Your task to perform on an android device: check out phone information Image 0: 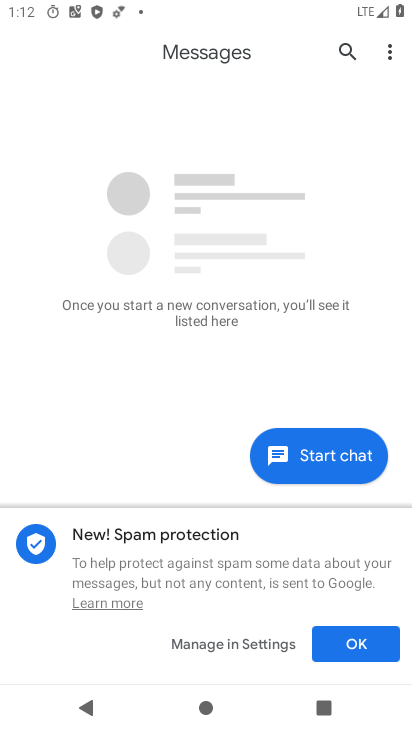
Step 0: press home button
Your task to perform on an android device: check out phone information Image 1: 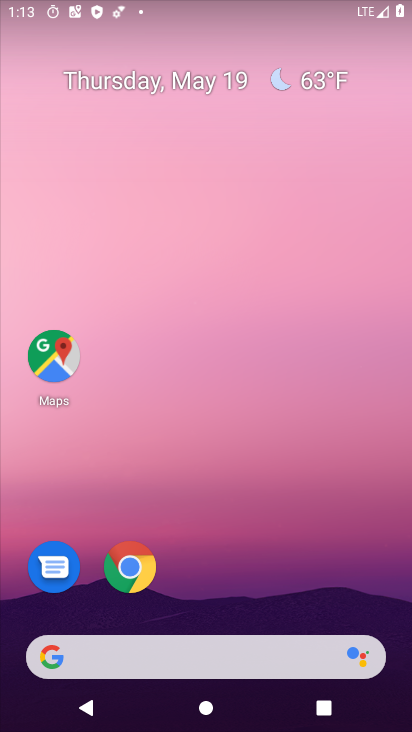
Step 1: drag from (152, 657) to (314, 252)
Your task to perform on an android device: check out phone information Image 2: 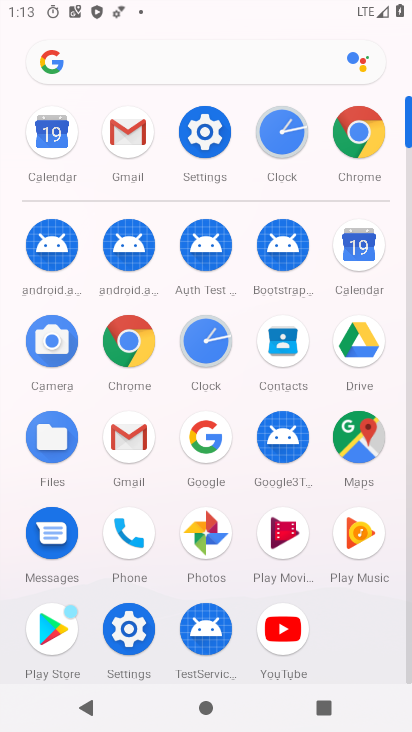
Step 2: click (208, 146)
Your task to perform on an android device: check out phone information Image 3: 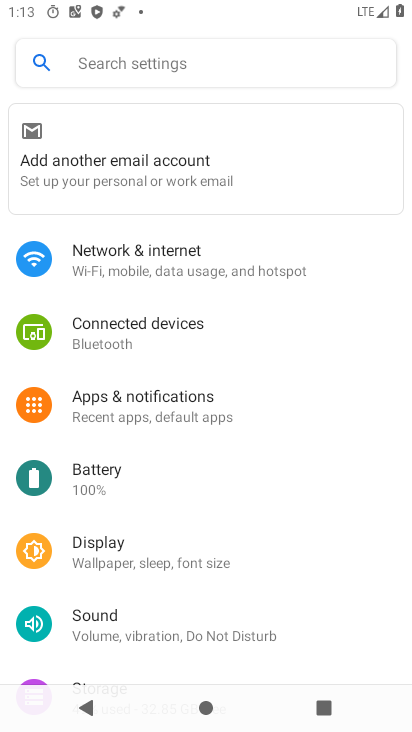
Step 3: drag from (206, 649) to (343, 184)
Your task to perform on an android device: check out phone information Image 4: 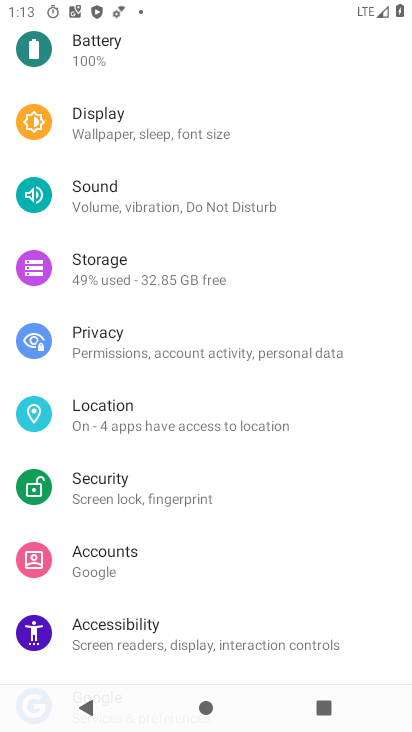
Step 4: drag from (216, 586) to (299, 283)
Your task to perform on an android device: check out phone information Image 5: 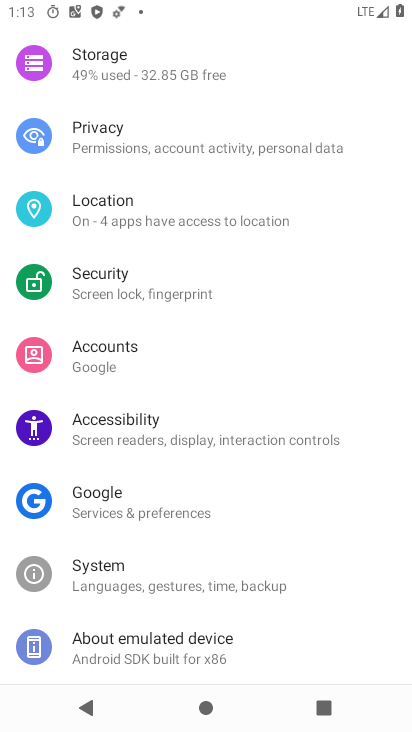
Step 5: click (155, 642)
Your task to perform on an android device: check out phone information Image 6: 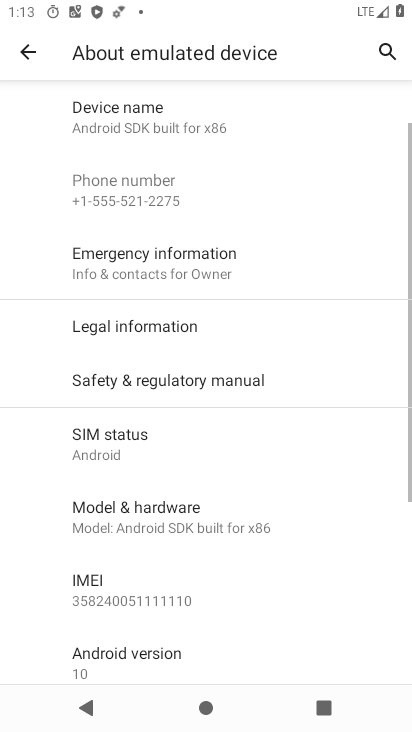
Step 6: task complete